Your task to perform on an android device: open chrome and create a bookmark for the current page Image 0: 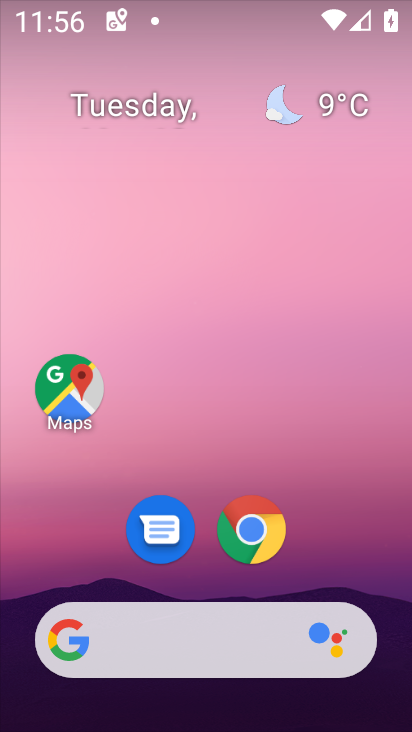
Step 0: click (225, 525)
Your task to perform on an android device: open chrome and create a bookmark for the current page Image 1: 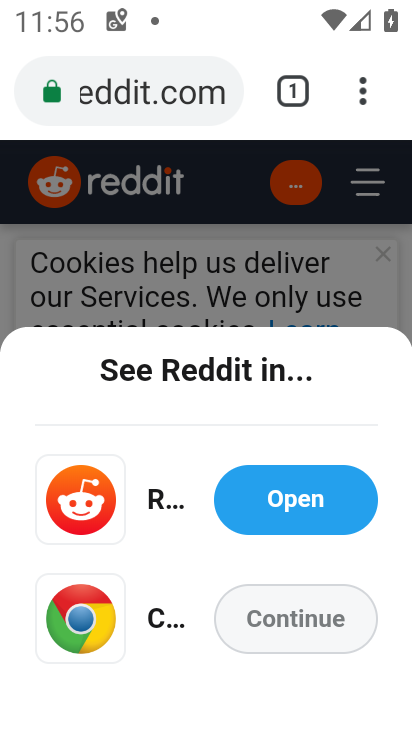
Step 1: task complete